Your task to perform on an android device: Open calendar and show me the fourth week of next month Image 0: 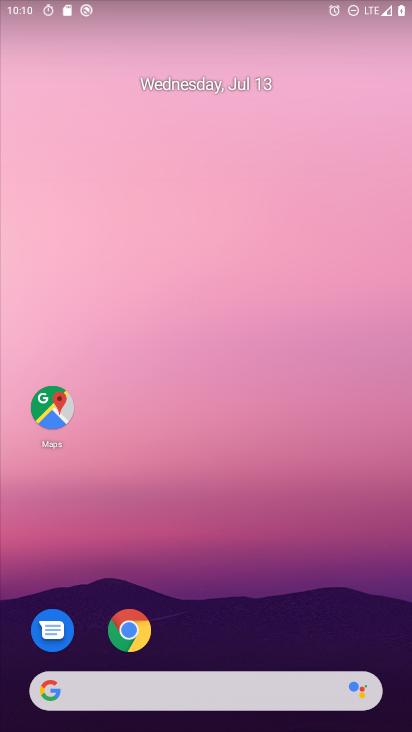
Step 0: drag from (382, 636) to (238, 50)
Your task to perform on an android device: Open calendar and show me the fourth week of next month Image 1: 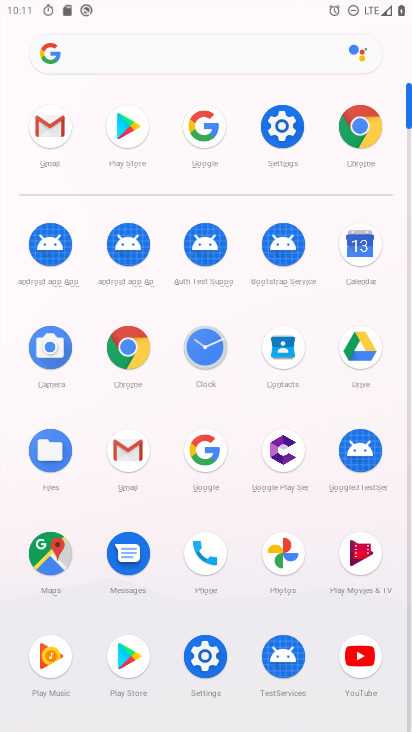
Step 1: click (359, 232)
Your task to perform on an android device: Open calendar and show me the fourth week of next month Image 2: 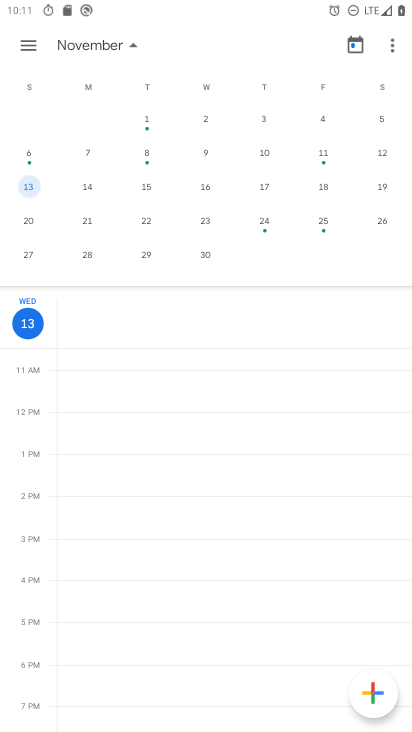
Step 2: drag from (376, 187) to (60, 165)
Your task to perform on an android device: Open calendar and show me the fourth week of next month Image 3: 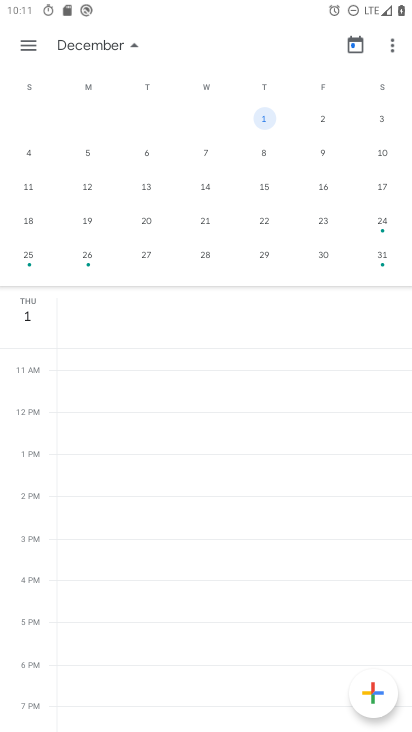
Step 3: click (25, 256)
Your task to perform on an android device: Open calendar and show me the fourth week of next month Image 4: 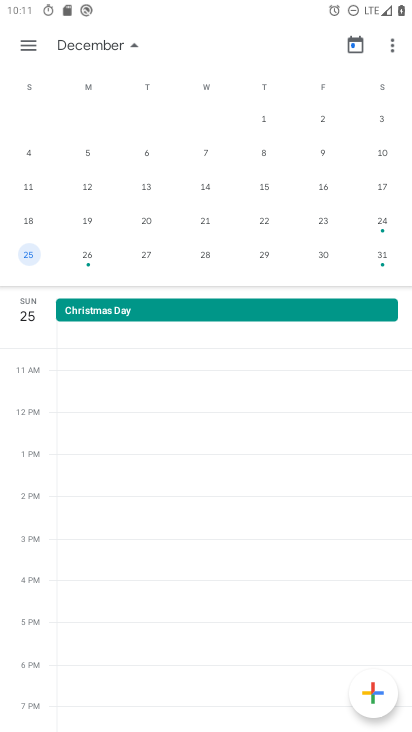
Step 4: task complete